Your task to perform on an android device: Do I have any events today? Image 0: 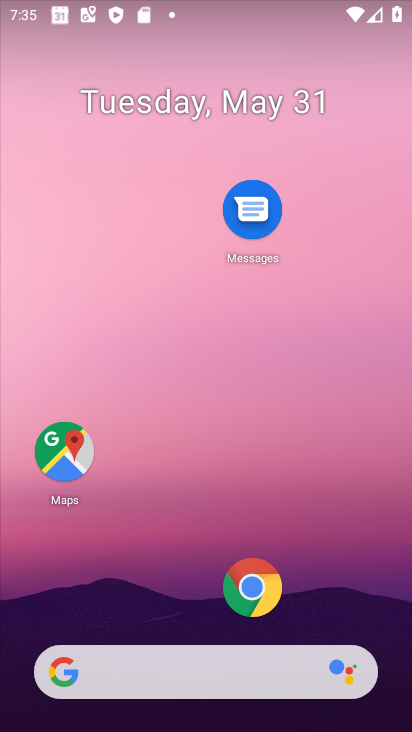
Step 0: drag from (208, 604) to (222, 276)
Your task to perform on an android device: Do I have any events today? Image 1: 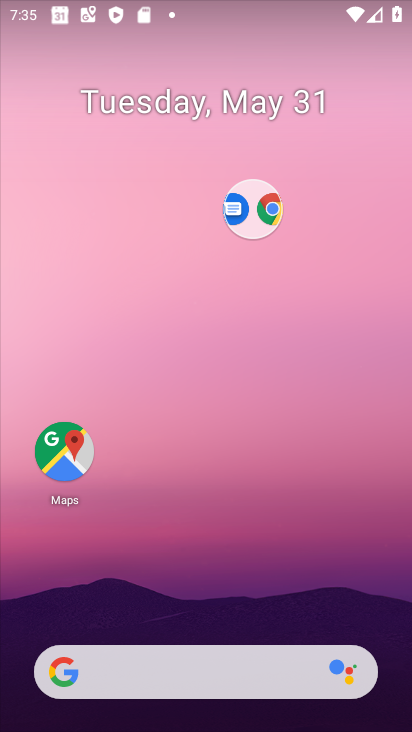
Step 1: click (262, 231)
Your task to perform on an android device: Do I have any events today? Image 2: 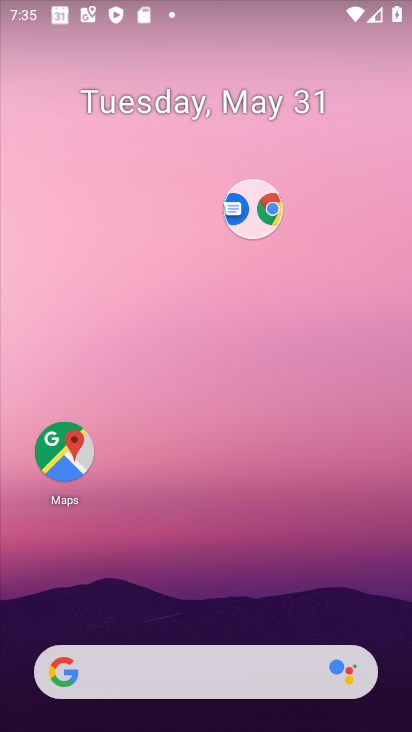
Step 2: drag from (269, 214) to (269, 430)
Your task to perform on an android device: Do I have any events today? Image 3: 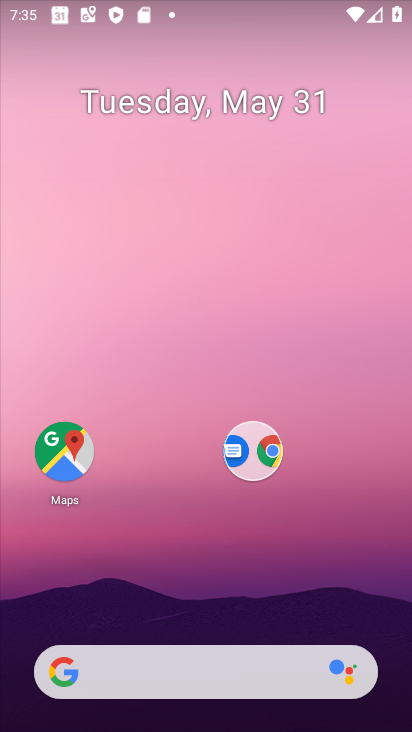
Step 3: drag from (247, 451) to (182, 326)
Your task to perform on an android device: Do I have any events today? Image 4: 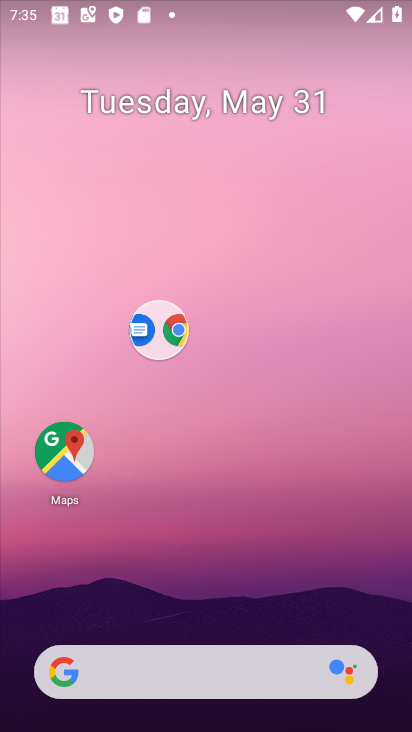
Step 4: drag from (171, 339) to (193, 18)
Your task to perform on an android device: Do I have any events today? Image 5: 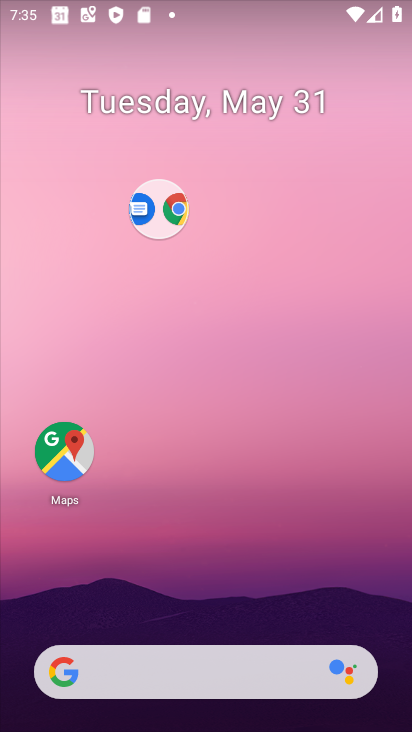
Step 5: drag from (195, 600) to (214, 369)
Your task to perform on an android device: Do I have any events today? Image 6: 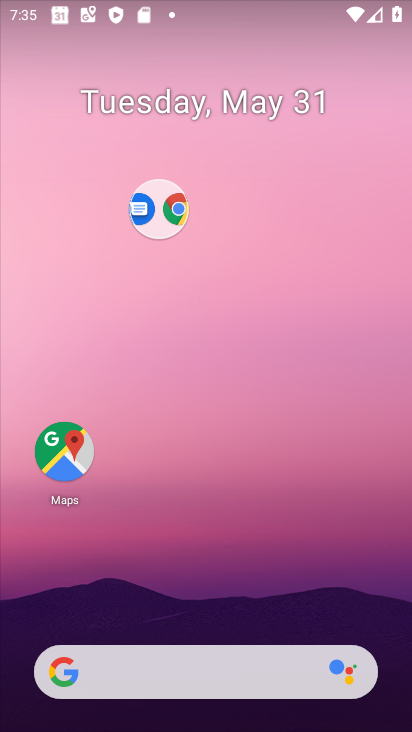
Step 6: drag from (197, 610) to (199, 165)
Your task to perform on an android device: Do I have any events today? Image 7: 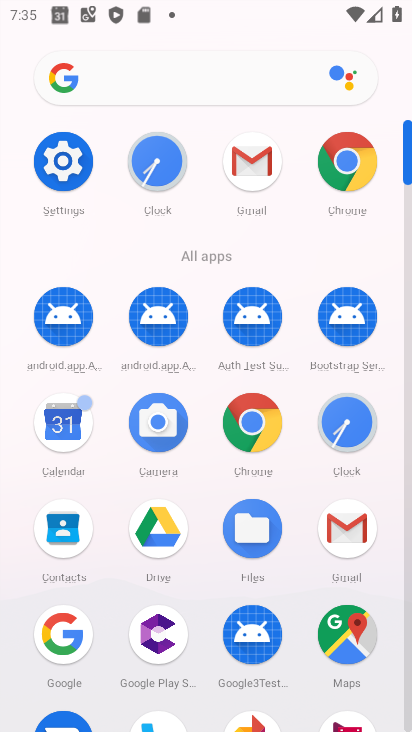
Step 7: click (71, 476)
Your task to perform on an android device: Do I have any events today? Image 8: 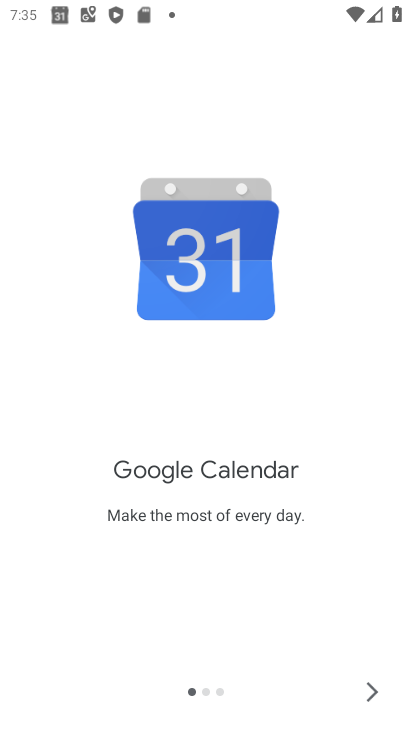
Step 8: click (374, 695)
Your task to perform on an android device: Do I have any events today? Image 9: 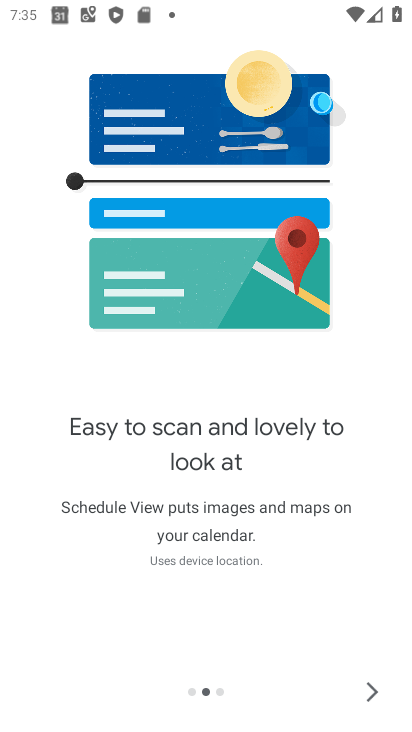
Step 9: click (374, 694)
Your task to perform on an android device: Do I have any events today? Image 10: 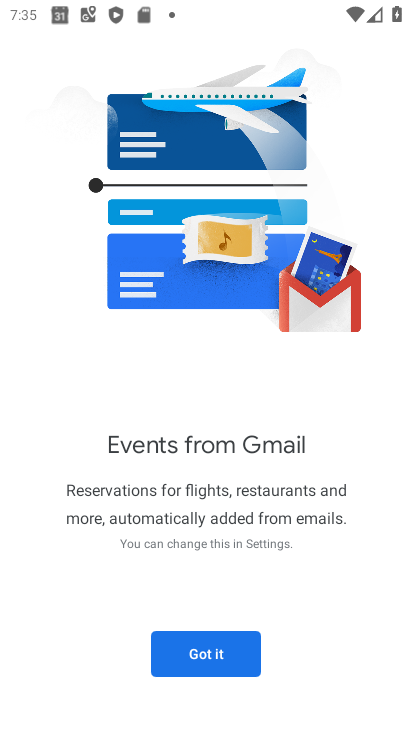
Step 10: click (198, 654)
Your task to perform on an android device: Do I have any events today? Image 11: 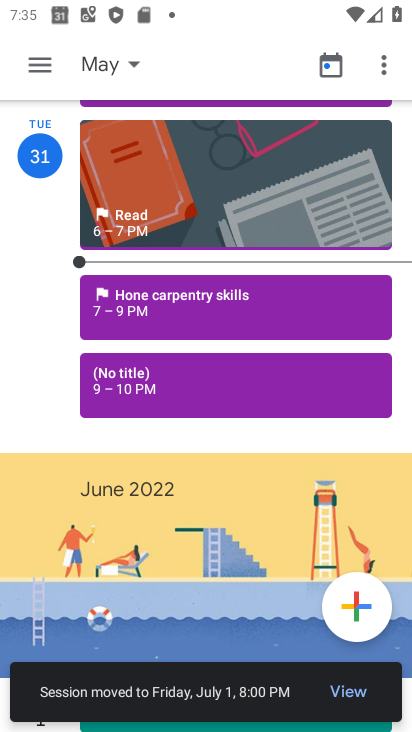
Step 11: task complete